Your task to perform on an android device: open sync settings in chrome Image 0: 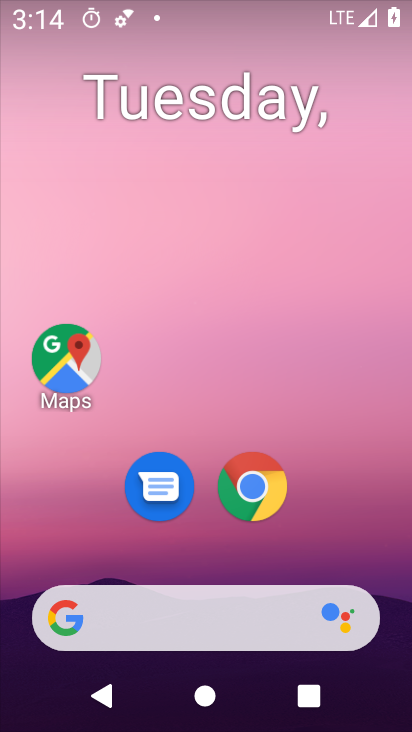
Step 0: press home button
Your task to perform on an android device: open sync settings in chrome Image 1: 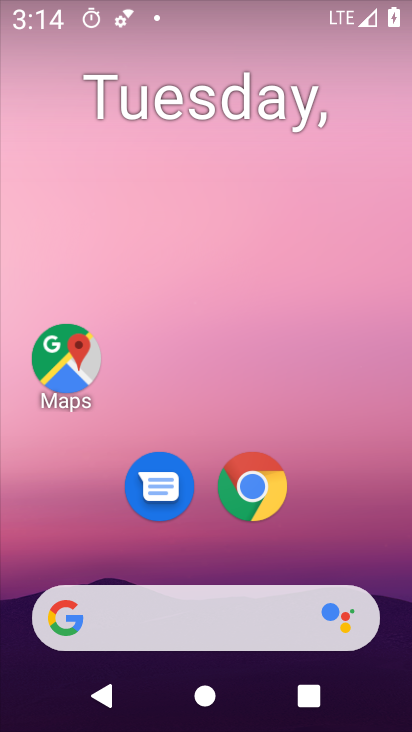
Step 1: drag from (346, 529) to (332, 93)
Your task to perform on an android device: open sync settings in chrome Image 2: 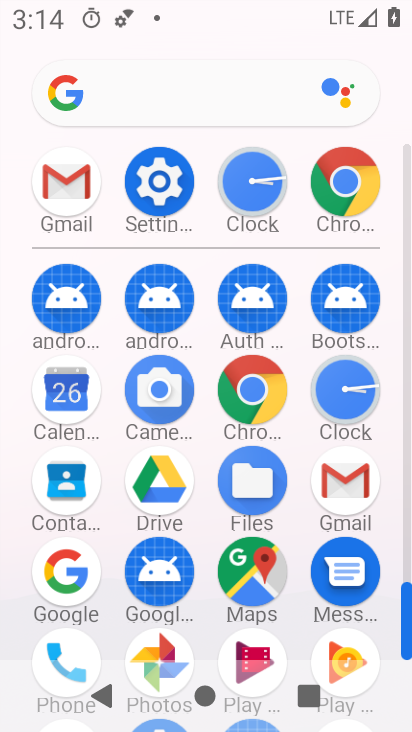
Step 2: click (344, 193)
Your task to perform on an android device: open sync settings in chrome Image 3: 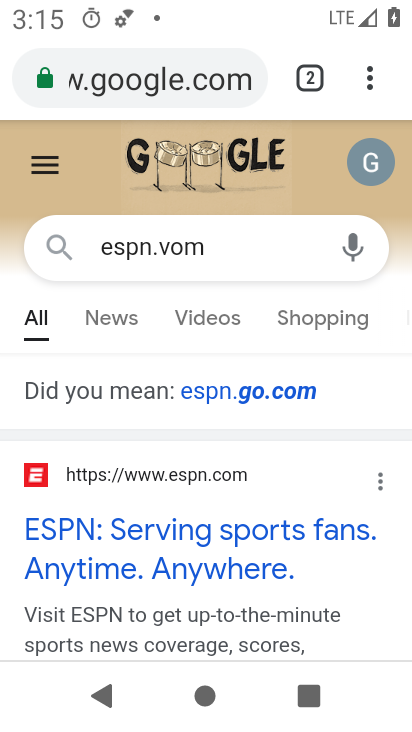
Step 3: click (367, 83)
Your task to perform on an android device: open sync settings in chrome Image 4: 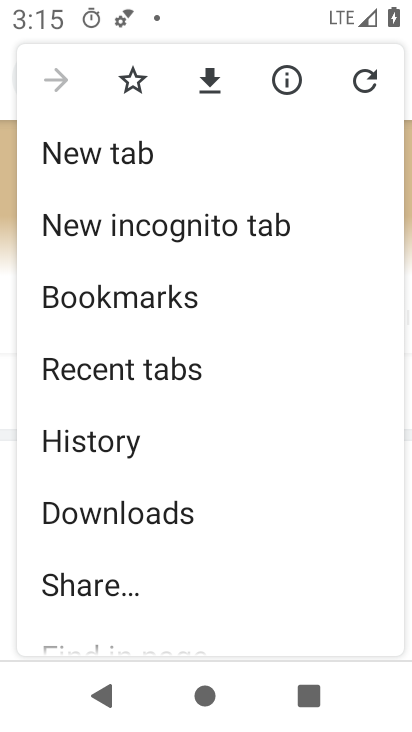
Step 4: drag from (309, 393) to (309, 316)
Your task to perform on an android device: open sync settings in chrome Image 5: 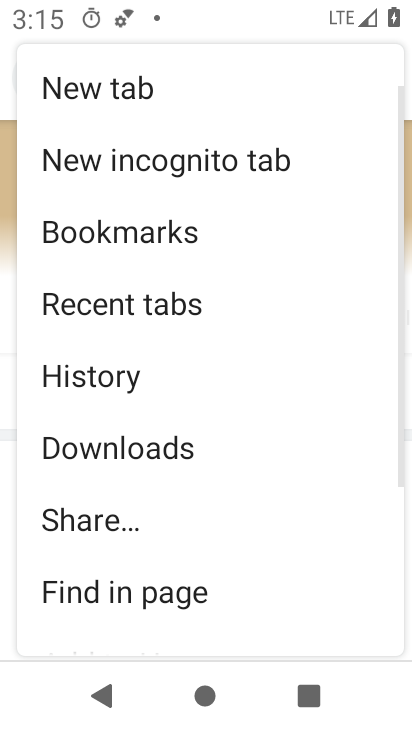
Step 5: drag from (320, 380) to (319, 306)
Your task to perform on an android device: open sync settings in chrome Image 6: 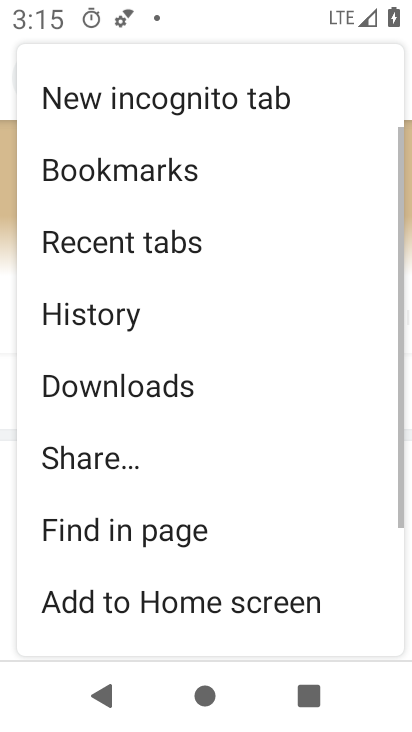
Step 6: drag from (327, 434) to (326, 369)
Your task to perform on an android device: open sync settings in chrome Image 7: 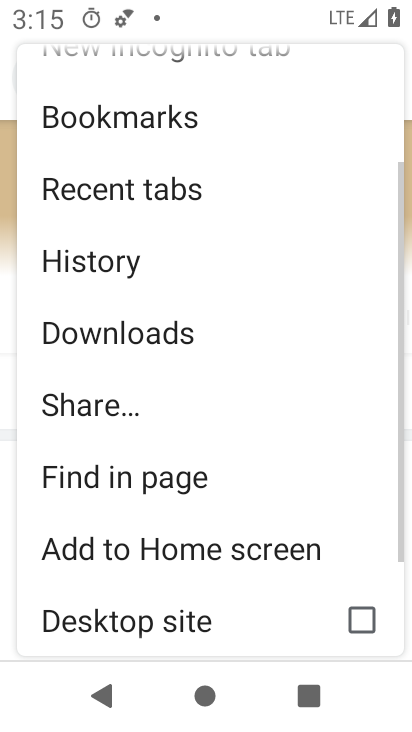
Step 7: drag from (326, 453) to (328, 378)
Your task to perform on an android device: open sync settings in chrome Image 8: 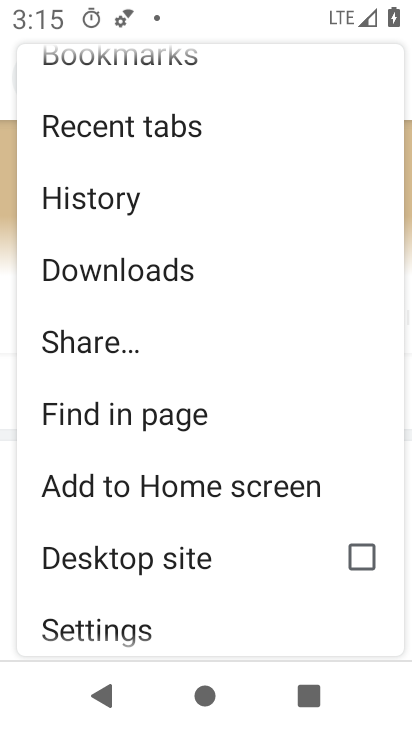
Step 8: drag from (315, 460) to (312, 358)
Your task to perform on an android device: open sync settings in chrome Image 9: 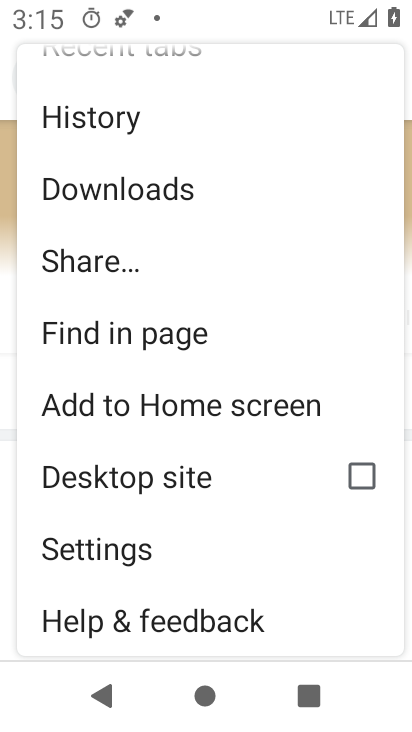
Step 9: drag from (272, 535) to (275, 436)
Your task to perform on an android device: open sync settings in chrome Image 10: 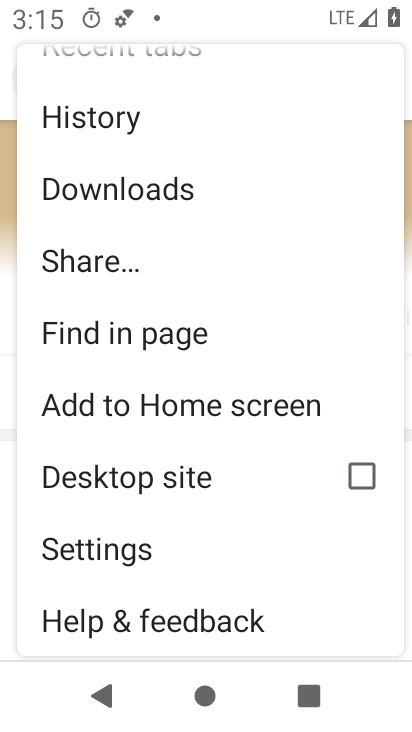
Step 10: click (232, 566)
Your task to perform on an android device: open sync settings in chrome Image 11: 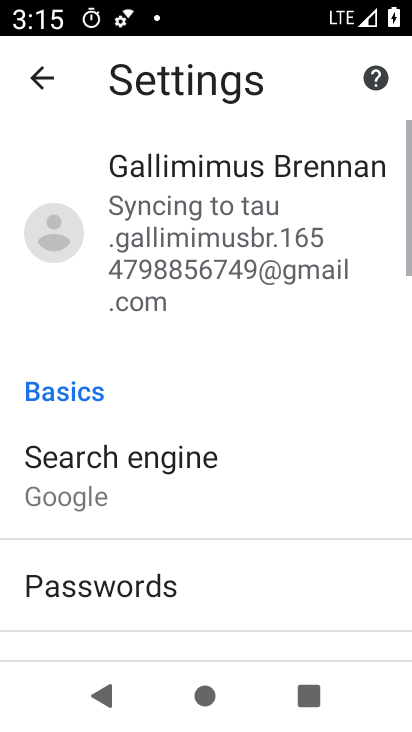
Step 11: drag from (262, 569) to (262, 487)
Your task to perform on an android device: open sync settings in chrome Image 12: 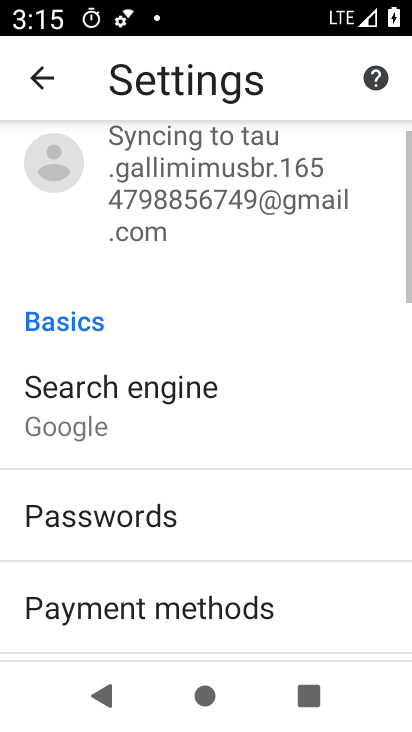
Step 12: drag from (284, 513) to (285, 458)
Your task to perform on an android device: open sync settings in chrome Image 13: 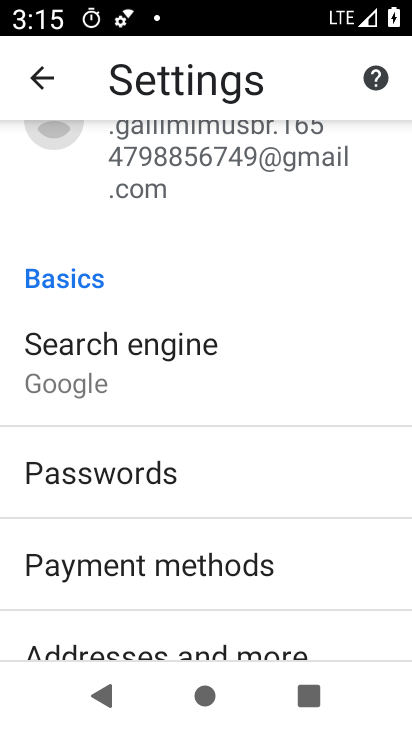
Step 13: drag from (316, 552) to (315, 462)
Your task to perform on an android device: open sync settings in chrome Image 14: 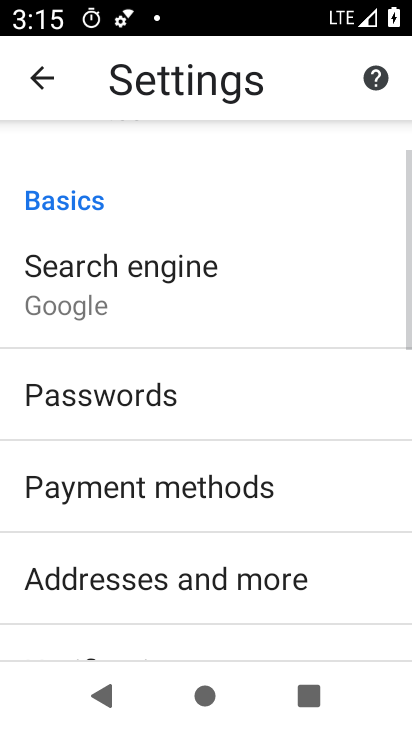
Step 14: drag from (332, 537) to (332, 455)
Your task to perform on an android device: open sync settings in chrome Image 15: 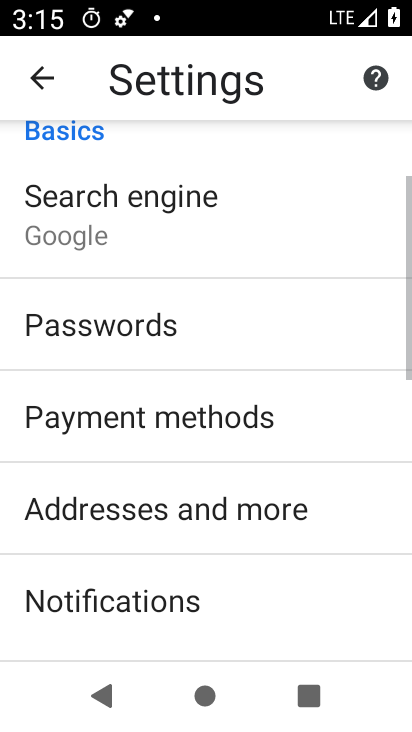
Step 15: drag from (336, 564) to (340, 487)
Your task to perform on an android device: open sync settings in chrome Image 16: 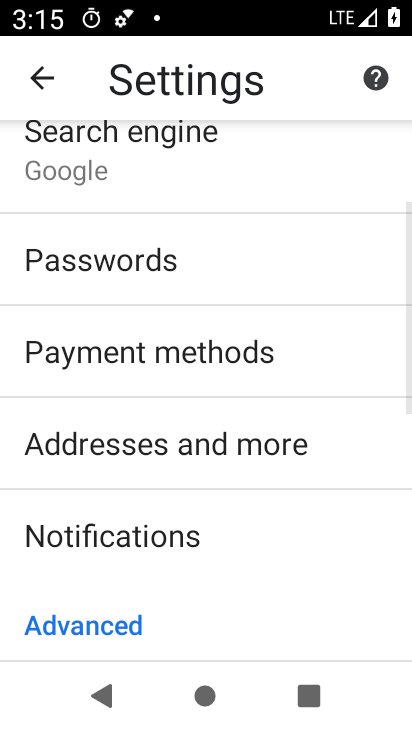
Step 16: drag from (342, 545) to (339, 470)
Your task to perform on an android device: open sync settings in chrome Image 17: 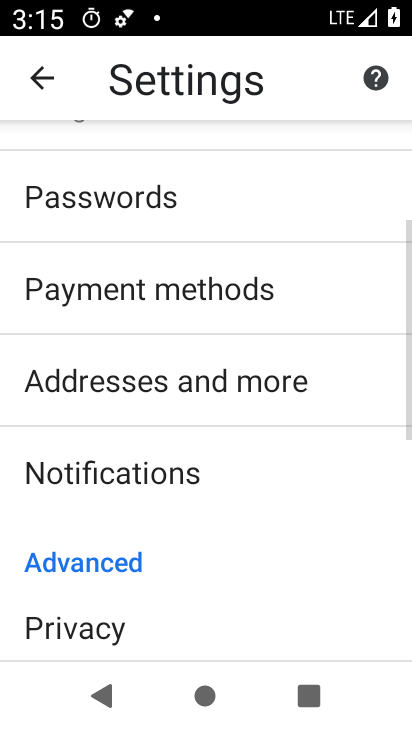
Step 17: drag from (339, 559) to (340, 474)
Your task to perform on an android device: open sync settings in chrome Image 18: 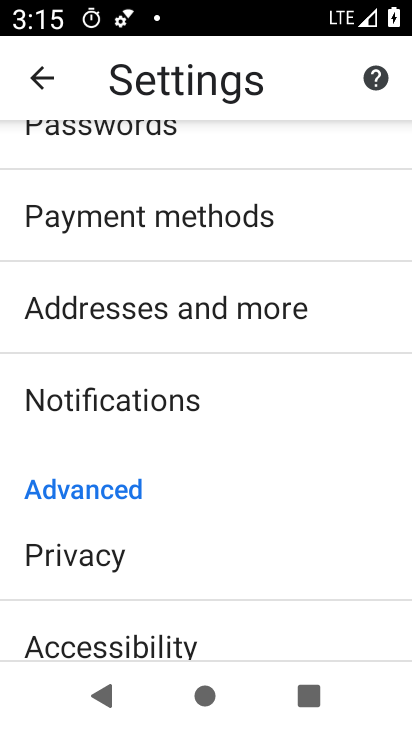
Step 18: drag from (337, 561) to (336, 457)
Your task to perform on an android device: open sync settings in chrome Image 19: 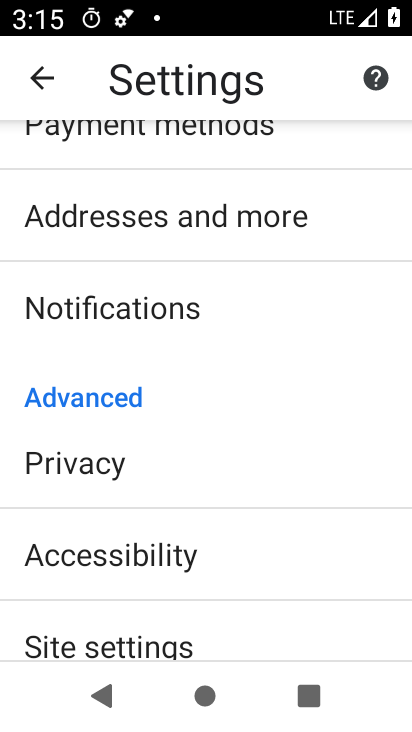
Step 19: drag from (329, 543) to (329, 466)
Your task to perform on an android device: open sync settings in chrome Image 20: 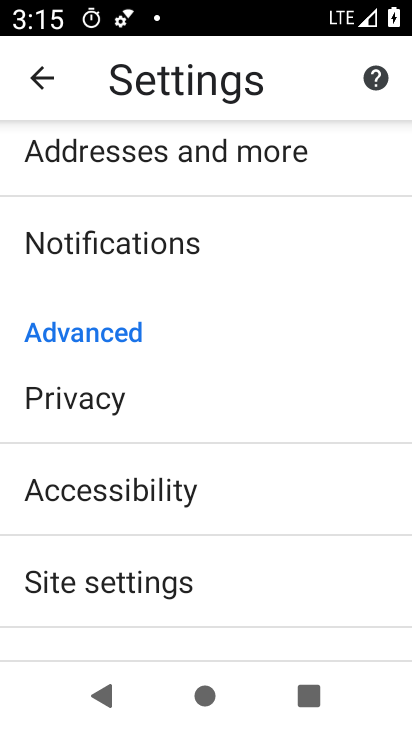
Step 20: click (314, 574)
Your task to perform on an android device: open sync settings in chrome Image 21: 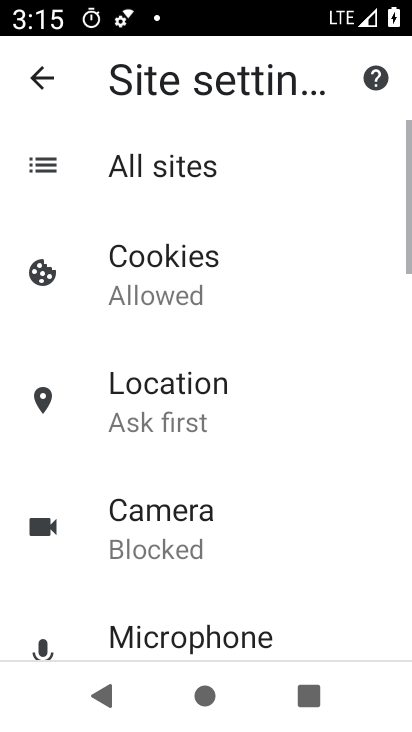
Step 21: drag from (317, 567) to (317, 499)
Your task to perform on an android device: open sync settings in chrome Image 22: 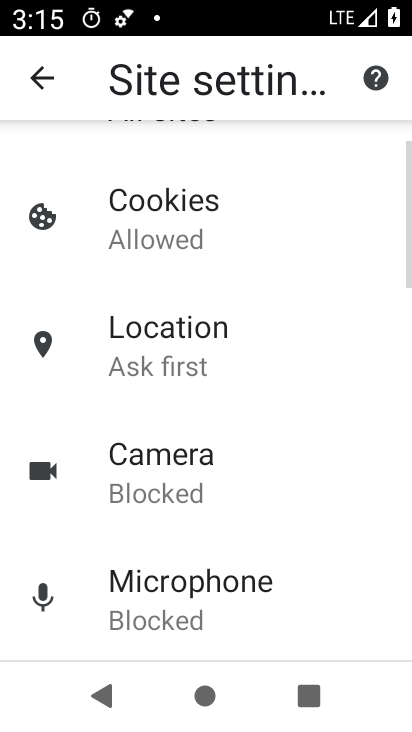
Step 22: drag from (318, 554) to (319, 491)
Your task to perform on an android device: open sync settings in chrome Image 23: 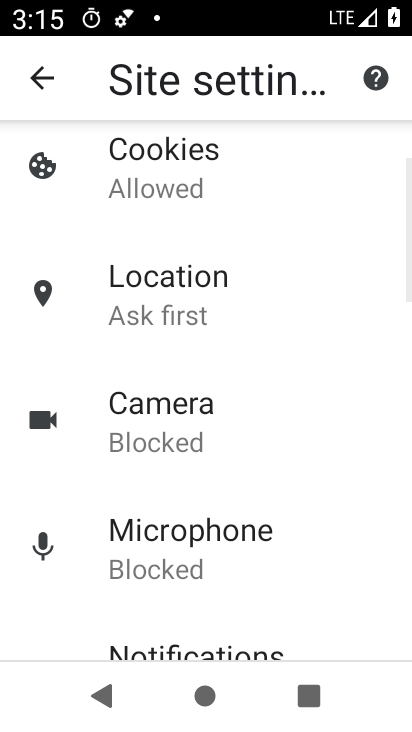
Step 23: drag from (322, 546) to (326, 448)
Your task to perform on an android device: open sync settings in chrome Image 24: 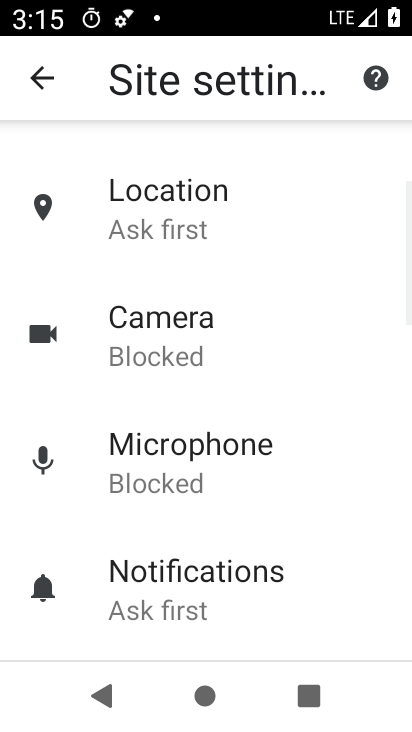
Step 24: drag from (343, 562) to (345, 457)
Your task to perform on an android device: open sync settings in chrome Image 25: 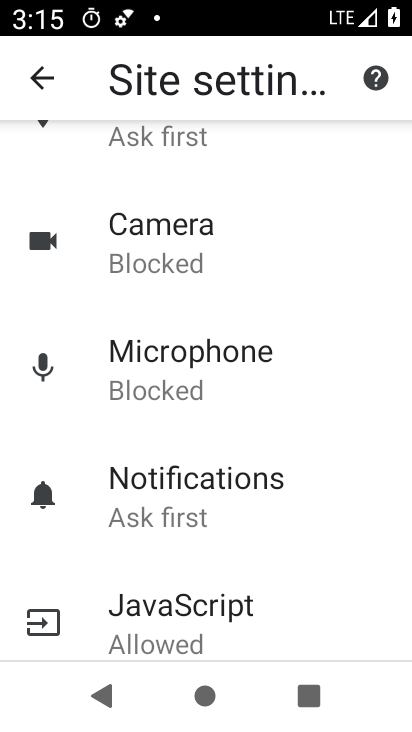
Step 25: drag from (348, 579) to (350, 468)
Your task to perform on an android device: open sync settings in chrome Image 26: 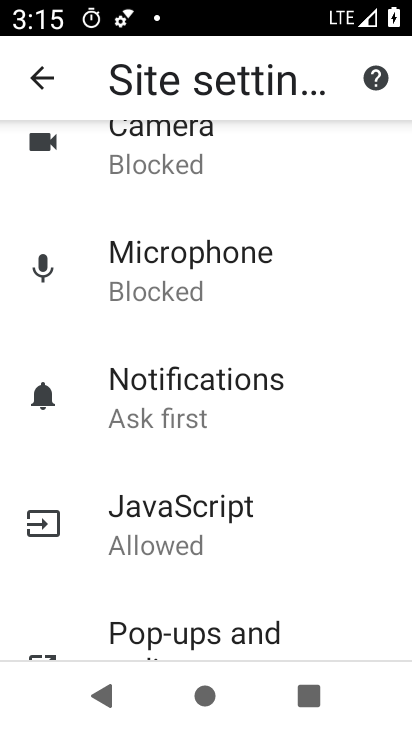
Step 26: drag from (345, 586) to (349, 447)
Your task to perform on an android device: open sync settings in chrome Image 27: 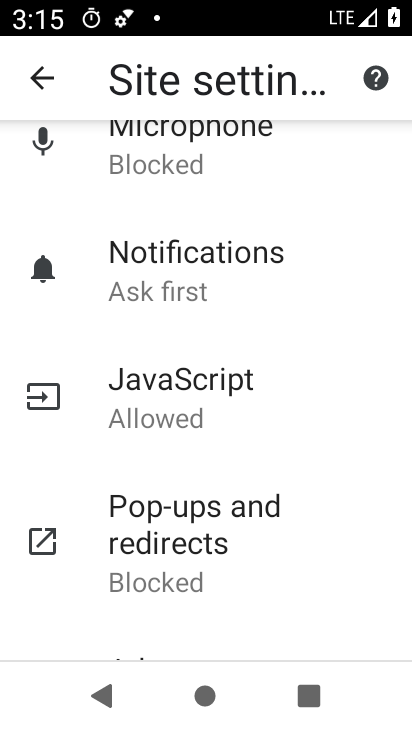
Step 27: drag from (344, 546) to (344, 454)
Your task to perform on an android device: open sync settings in chrome Image 28: 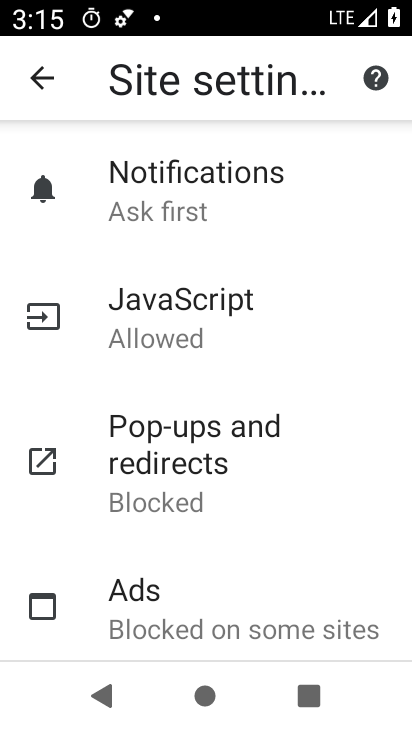
Step 28: drag from (350, 534) to (349, 419)
Your task to perform on an android device: open sync settings in chrome Image 29: 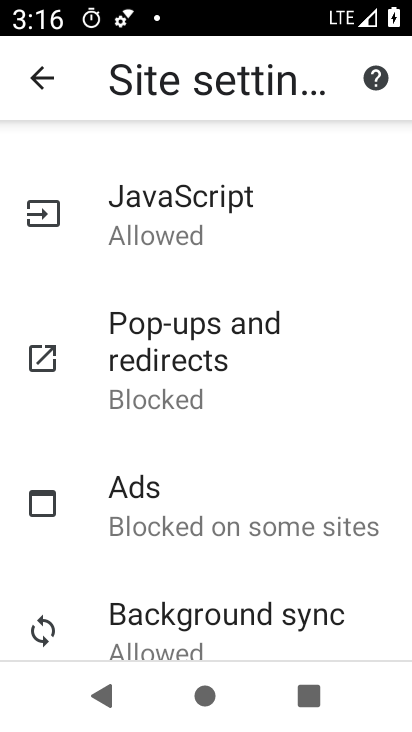
Step 29: drag from (348, 553) to (346, 451)
Your task to perform on an android device: open sync settings in chrome Image 30: 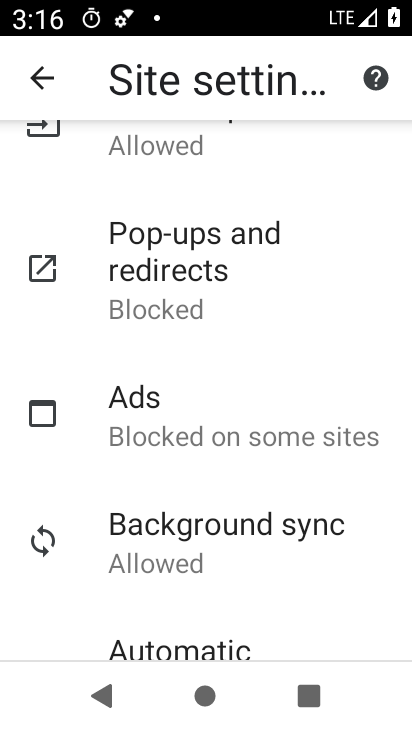
Step 30: click (322, 525)
Your task to perform on an android device: open sync settings in chrome Image 31: 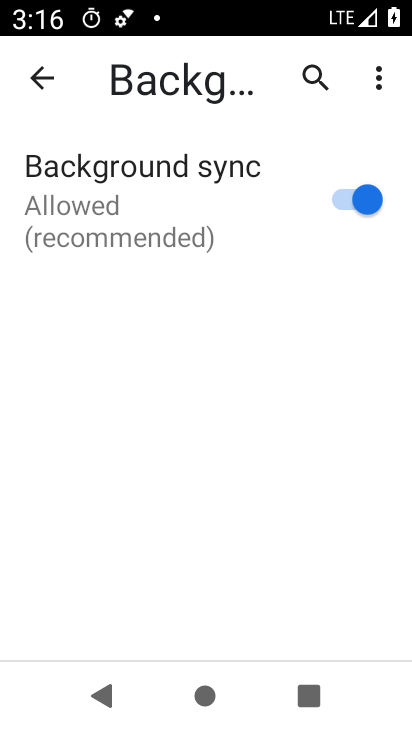
Step 31: task complete